Your task to perform on an android device: turn off data saver in the chrome app Image 0: 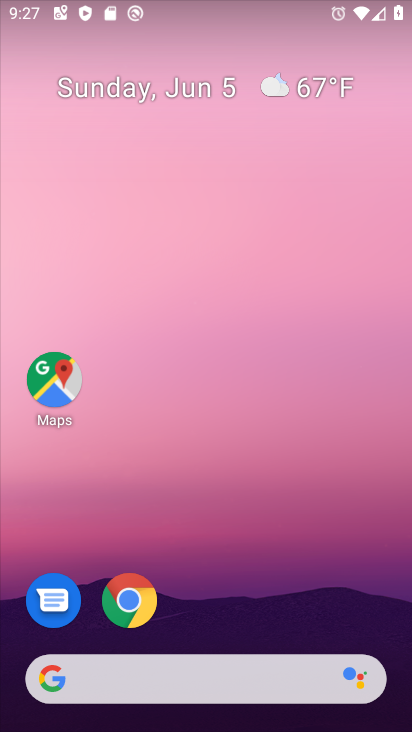
Step 0: drag from (388, 620) to (233, 70)
Your task to perform on an android device: turn off data saver in the chrome app Image 1: 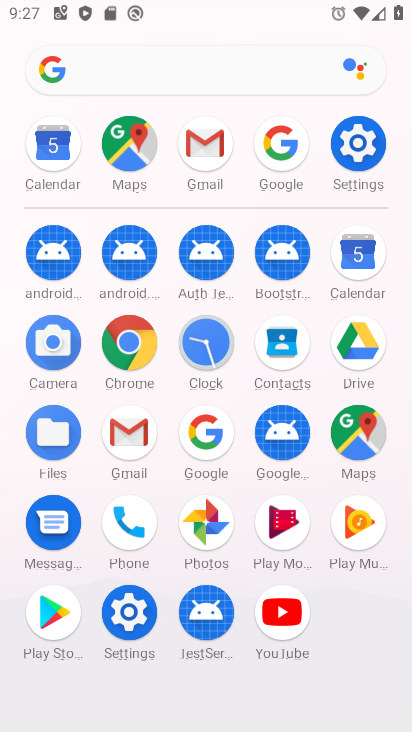
Step 1: click (123, 363)
Your task to perform on an android device: turn off data saver in the chrome app Image 2: 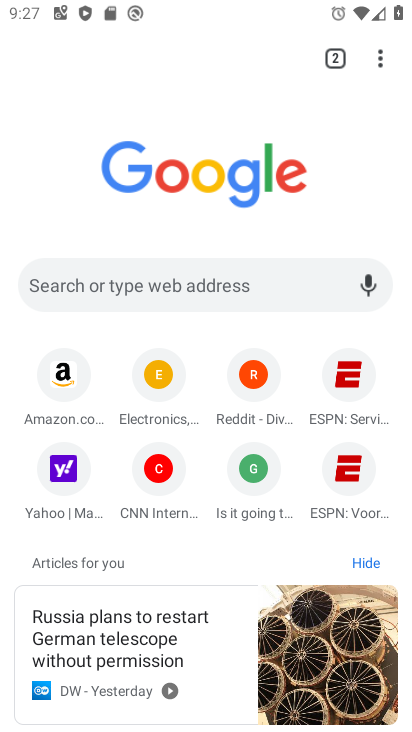
Step 2: click (382, 55)
Your task to perform on an android device: turn off data saver in the chrome app Image 3: 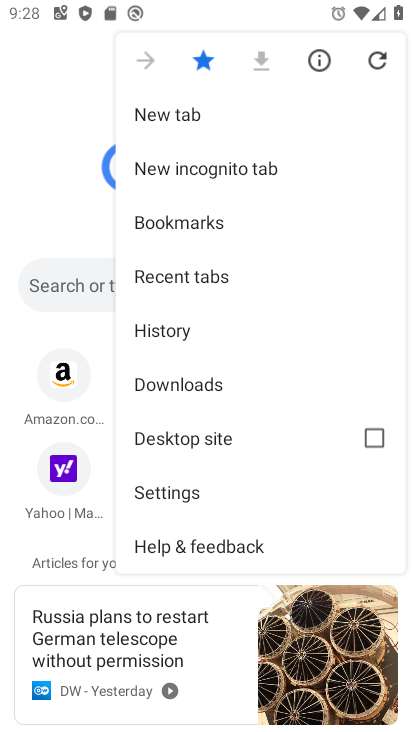
Step 3: click (203, 491)
Your task to perform on an android device: turn off data saver in the chrome app Image 4: 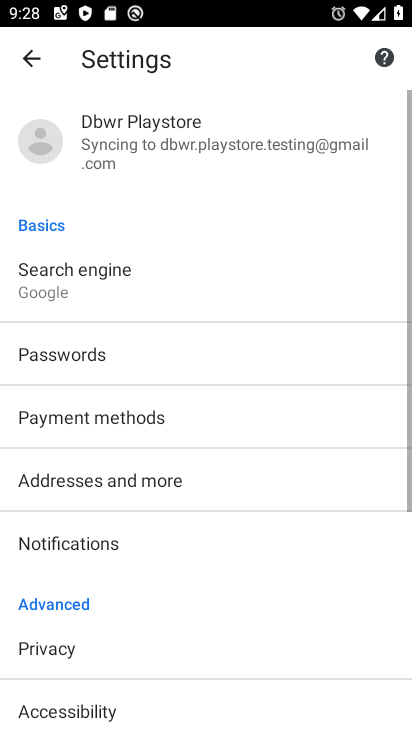
Step 4: drag from (126, 664) to (220, 259)
Your task to perform on an android device: turn off data saver in the chrome app Image 5: 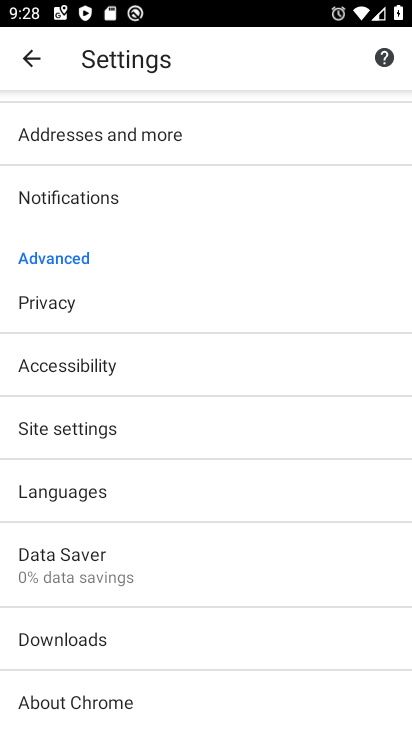
Step 5: click (110, 566)
Your task to perform on an android device: turn off data saver in the chrome app Image 6: 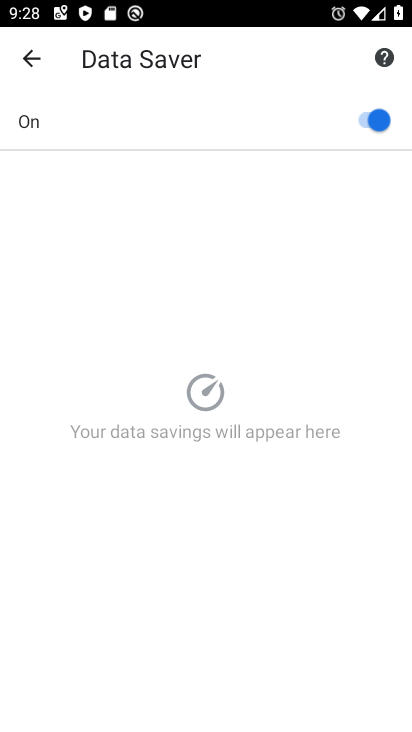
Step 6: click (342, 124)
Your task to perform on an android device: turn off data saver in the chrome app Image 7: 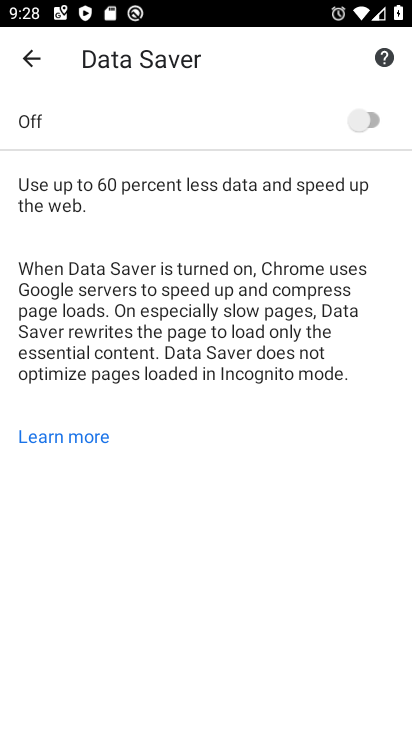
Step 7: task complete